Your task to perform on an android device: change timer sound Image 0: 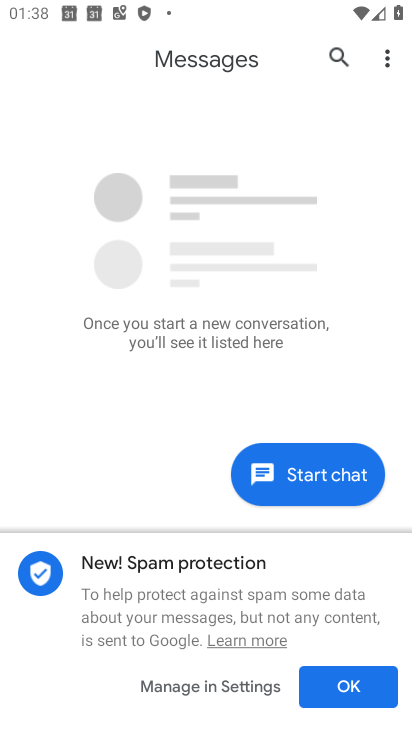
Step 0: press home button
Your task to perform on an android device: change timer sound Image 1: 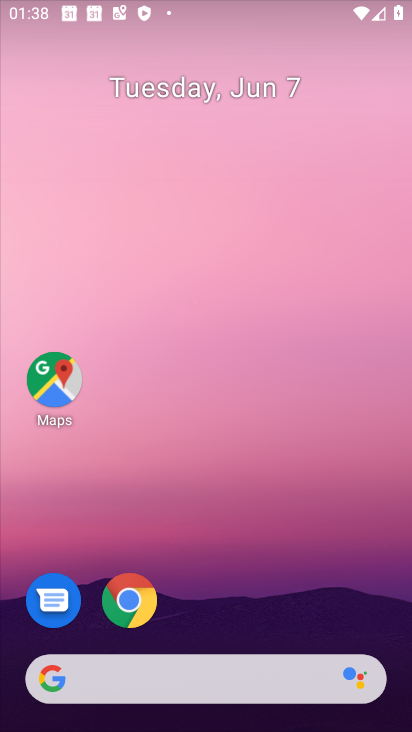
Step 1: drag from (222, 727) to (193, 170)
Your task to perform on an android device: change timer sound Image 2: 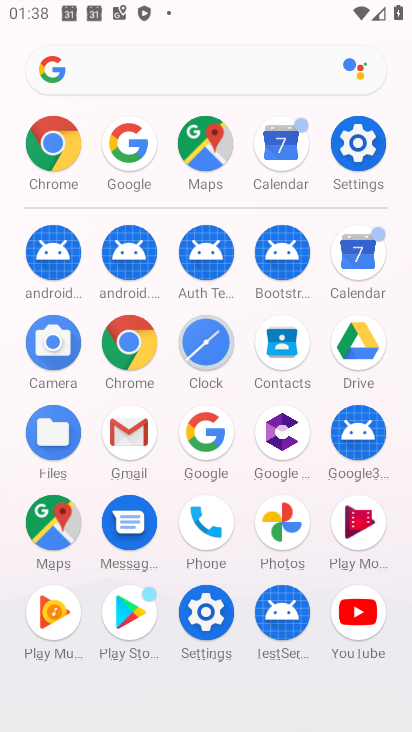
Step 2: click (206, 345)
Your task to perform on an android device: change timer sound Image 3: 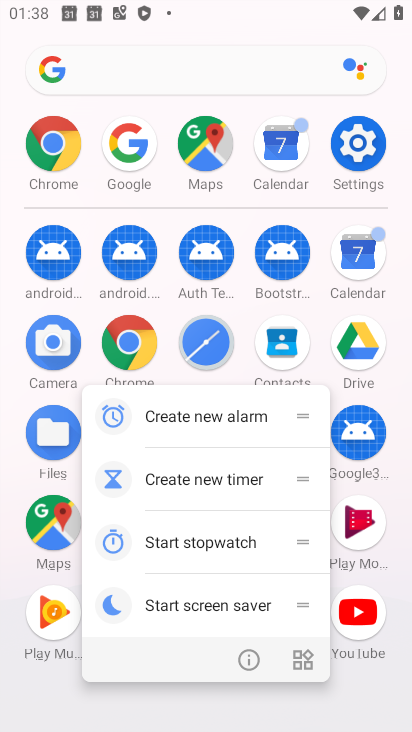
Step 3: click (212, 348)
Your task to perform on an android device: change timer sound Image 4: 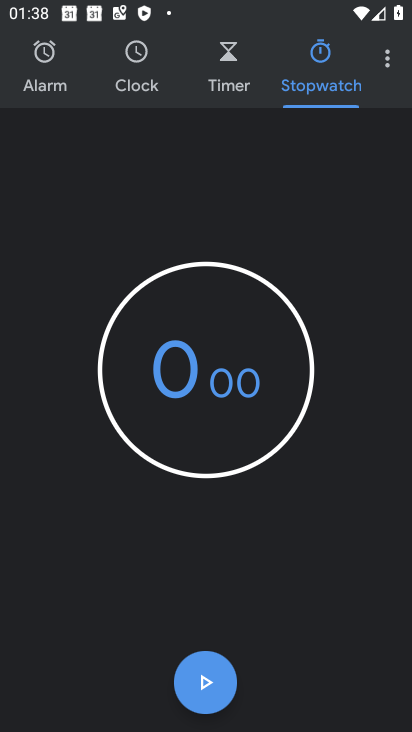
Step 4: click (387, 60)
Your task to perform on an android device: change timer sound Image 5: 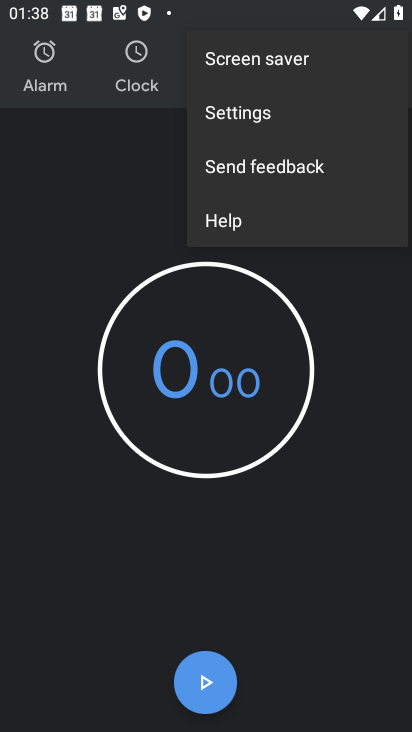
Step 5: click (234, 117)
Your task to perform on an android device: change timer sound Image 6: 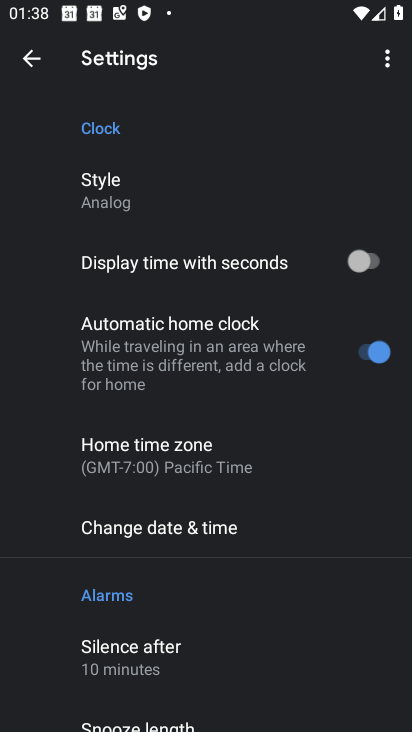
Step 6: drag from (199, 668) to (177, 271)
Your task to perform on an android device: change timer sound Image 7: 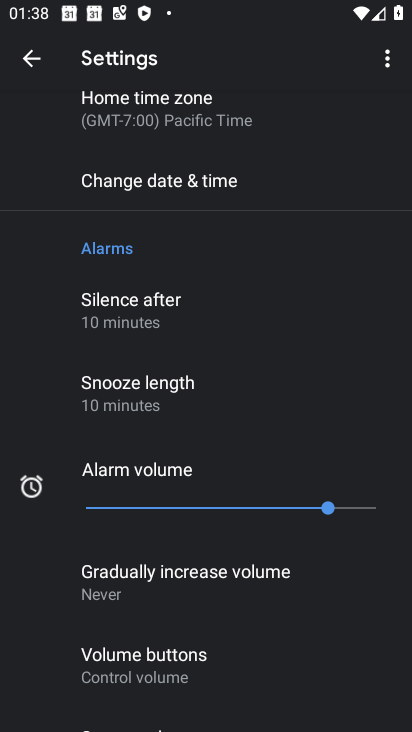
Step 7: drag from (154, 650) to (153, 302)
Your task to perform on an android device: change timer sound Image 8: 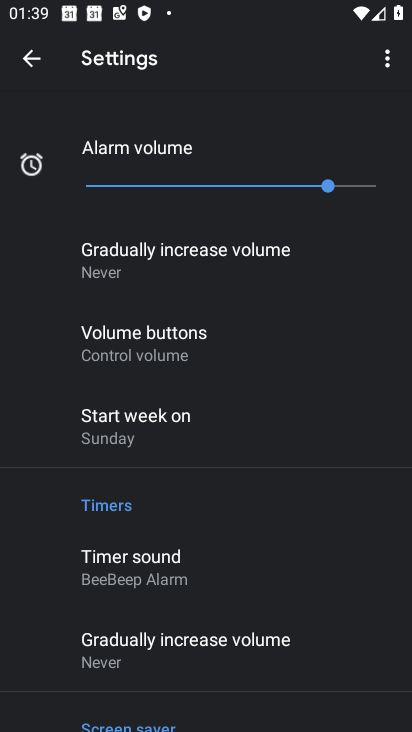
Step 8: click (134, 574)
Your task to perform on an android device: change timer sound Image 9: 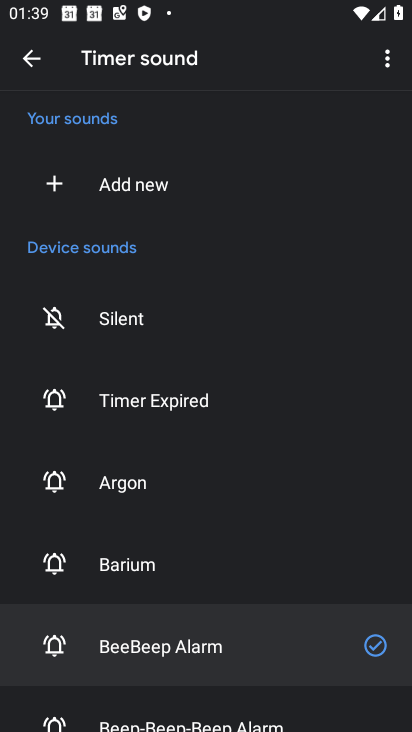
Step 9: click (143, 483)
Your task to perform on an android device: change timer sound Image 10: 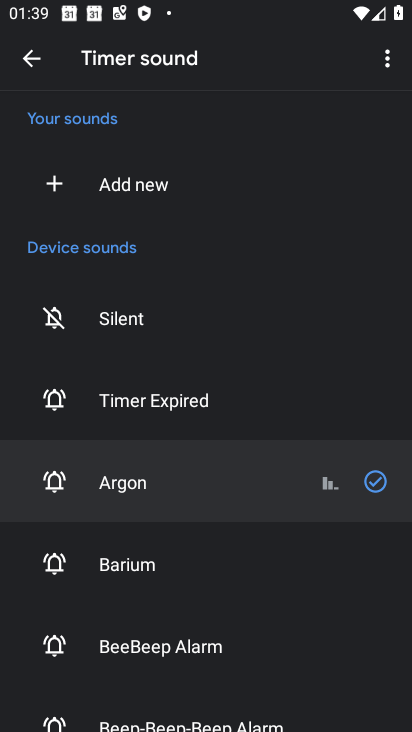
Step 10: task complete